Your task to perform on an android device: Go to display settings Image 0: 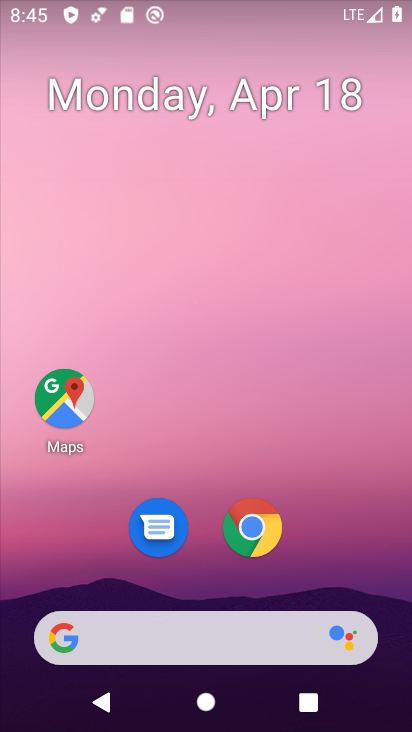
Step 0: drag from (339, 543) to (174, 10)
Your task to perform on an android device: Go to display settings Image 1: 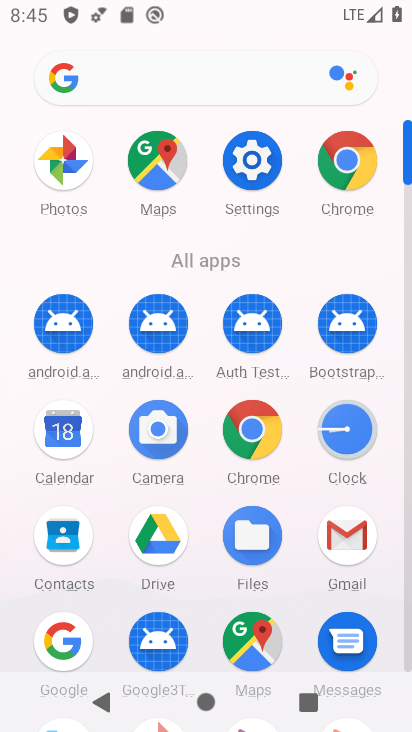
Step 1: click (255, 154)
Your task to perform on an android device: Go to display settings Image 2: 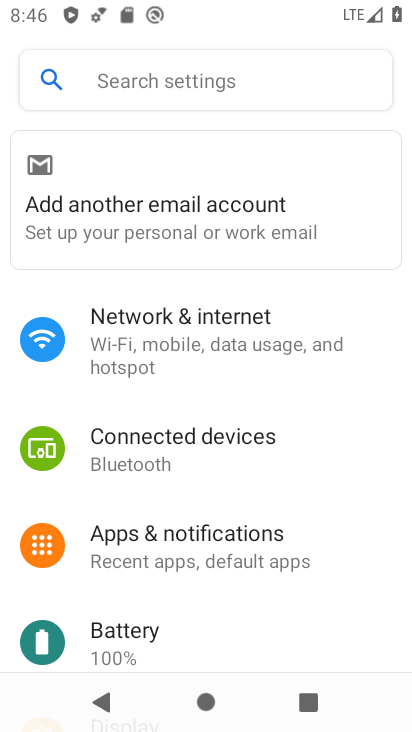
Step 2: drag from (339, 564) to (335, 174)
Your task to perform on an android device: Go to display settings Image 3: 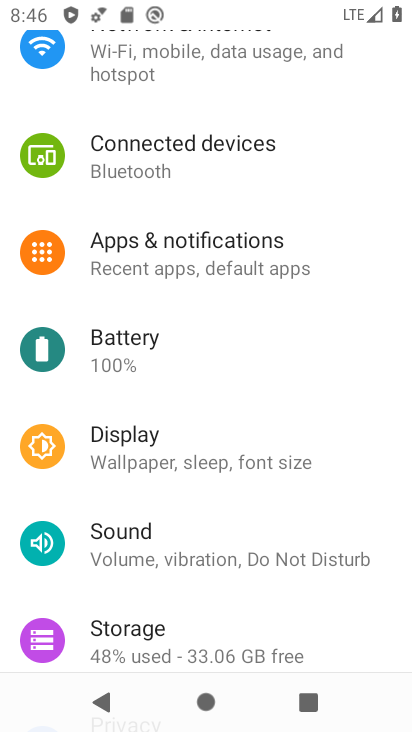
Step 3: click (175, 446)
Your task to perform on an android device: Go to display settings Image 4: 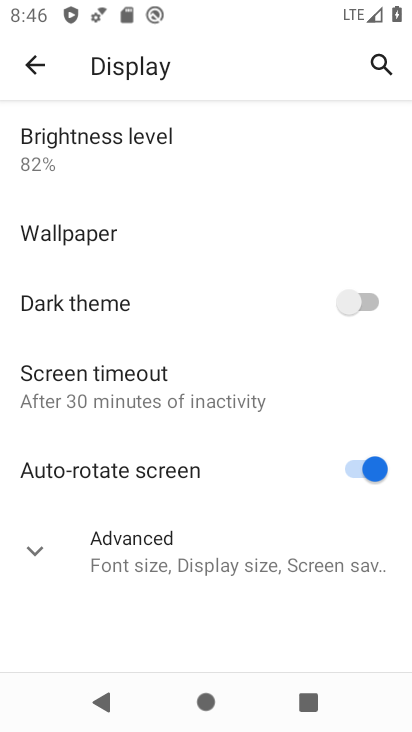
Step 4: click (51, 540)
Your task to perform on an android device: Go to display settings Image 5: 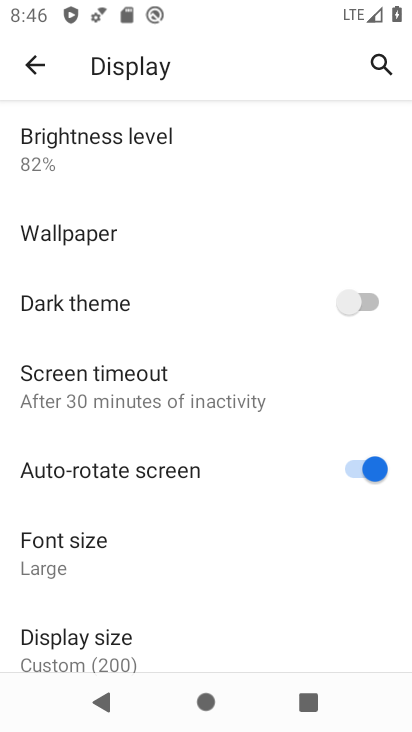
Step 5: task complete